Your task to perform on an android device: toggle priority inbox in the gmail app Image 0: 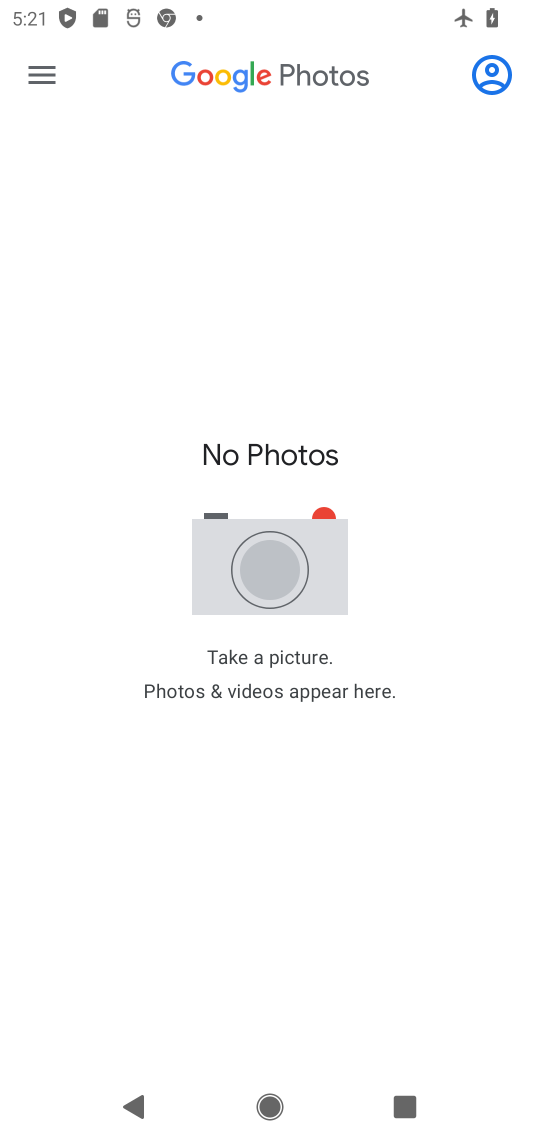
Step 0: press home button
Your task to perform on an android device: toggle priority inbox in the gmail app Image 1: 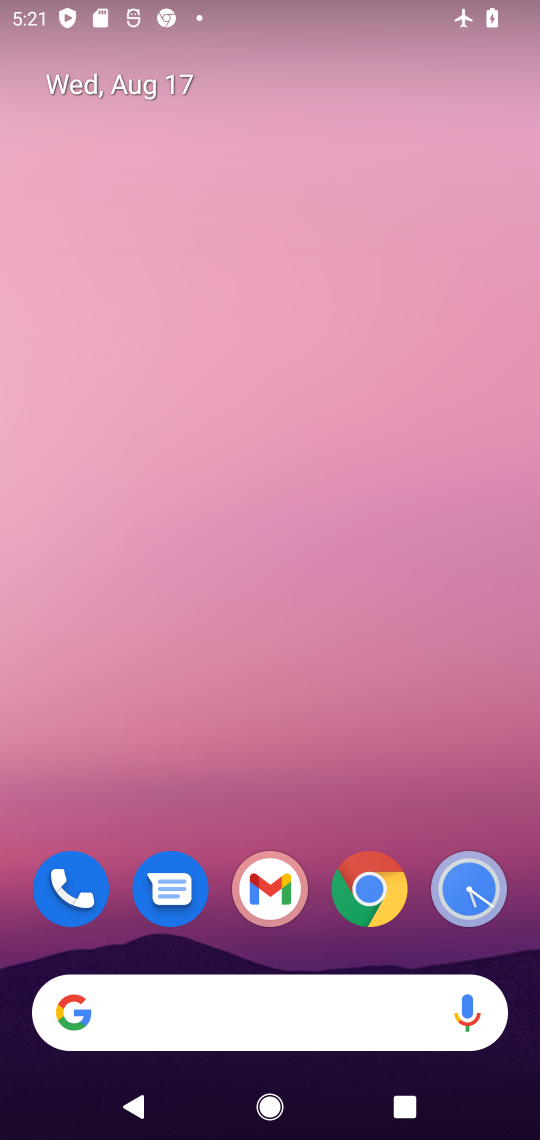
Step 1: click (277, 904)
Your task to perform on an android device: toggle priority inbox in the gmail app Image 2: 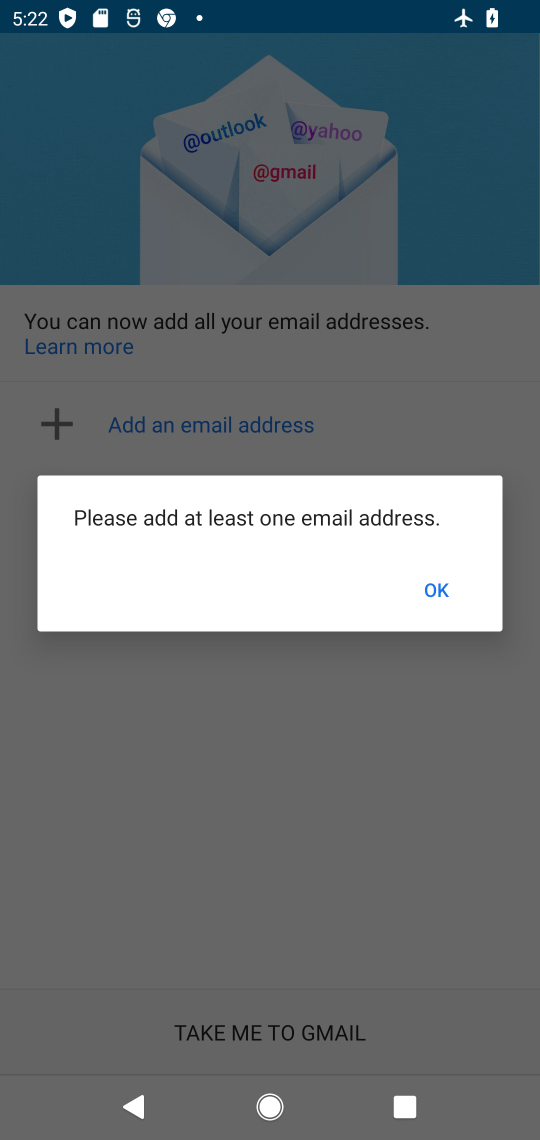
Step 2: click (424, 582)
Your task to perform on an android device: toggle priority inbox in the gmail app Image 3: 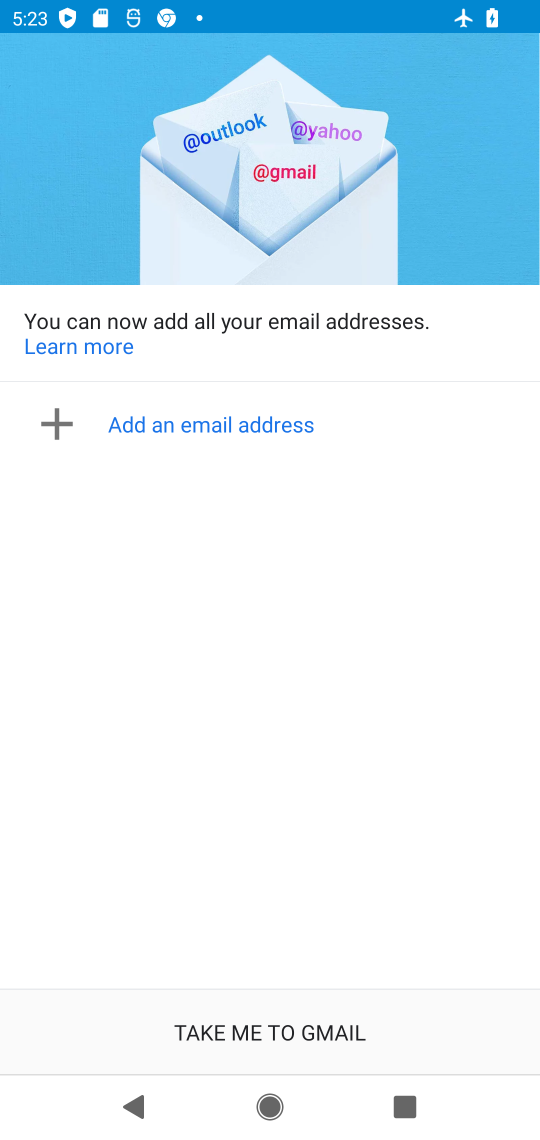
Step 3: click (295, 1026)
Your task to perform on an android device: toggle priority inbox in the gmail app Image 4: 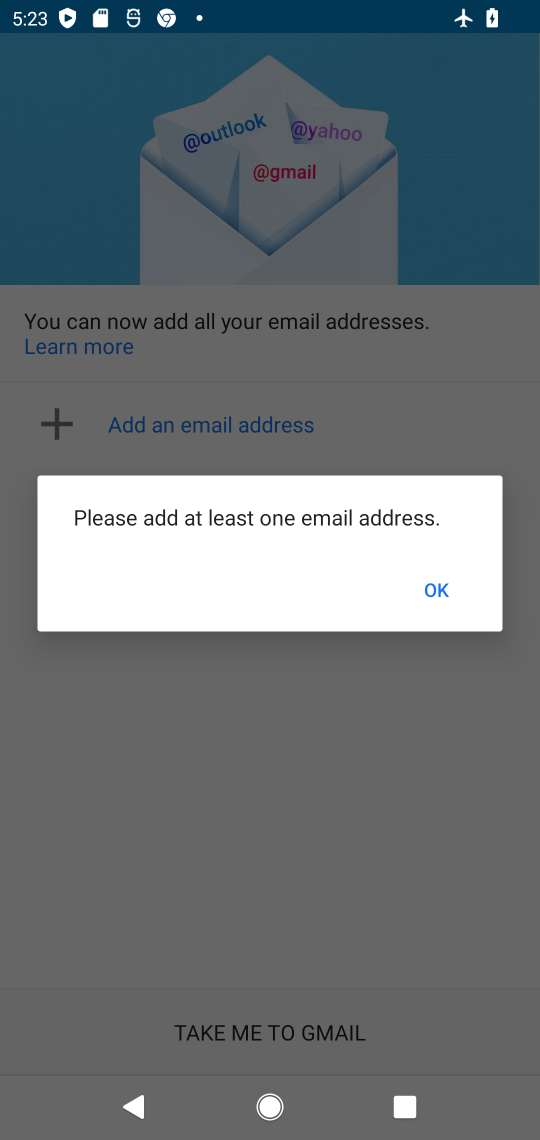
Step 4: task complete